Your task to perform on an android device: turn off airplane mode Image 0: 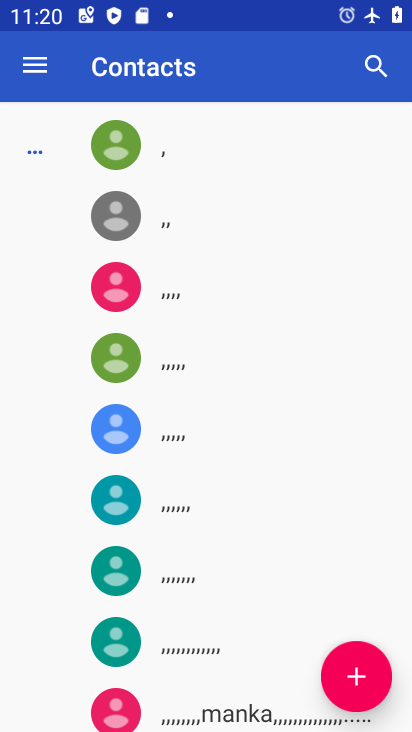
Step 0: press home button
Your task to perform on an android device: turn off airplane mode Image 1: 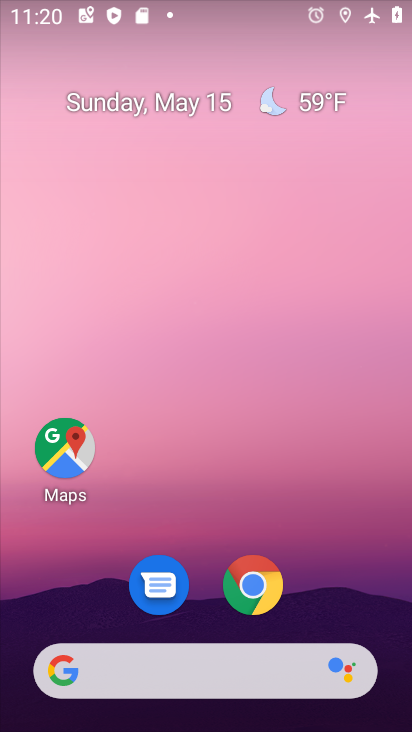
Step 1: drag from (258, 462) to (270, 29)
Your task to perform on an android device: turn off airplane mode Image 2: 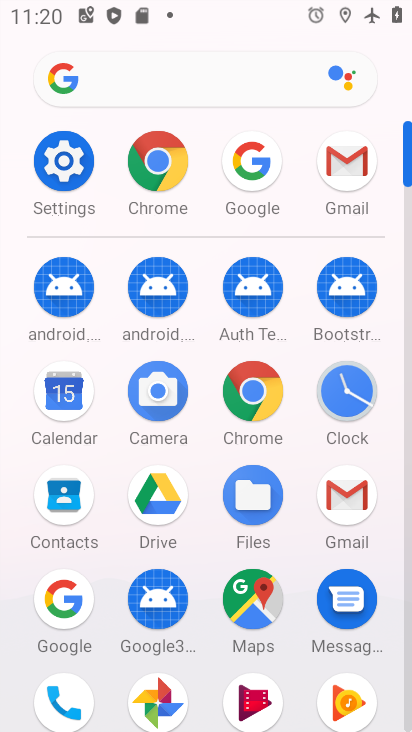
Step 2: click (70, 173)
Your task to perform on an android device: turn off airplane mode Image 3: 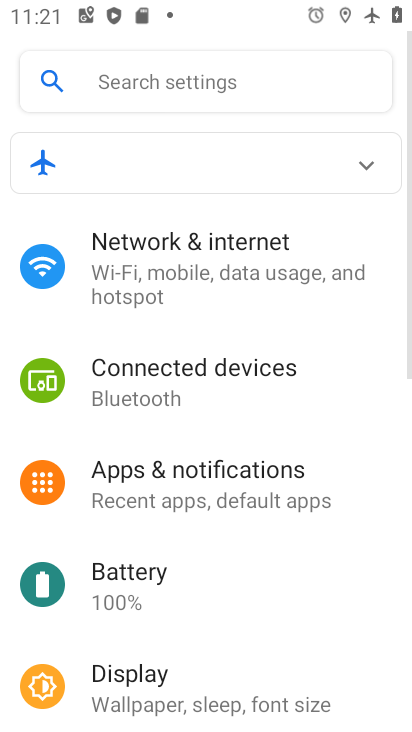
Step 3: click (156, 240)
Your task to perform on an android device: turn off airplane mode Image 4: 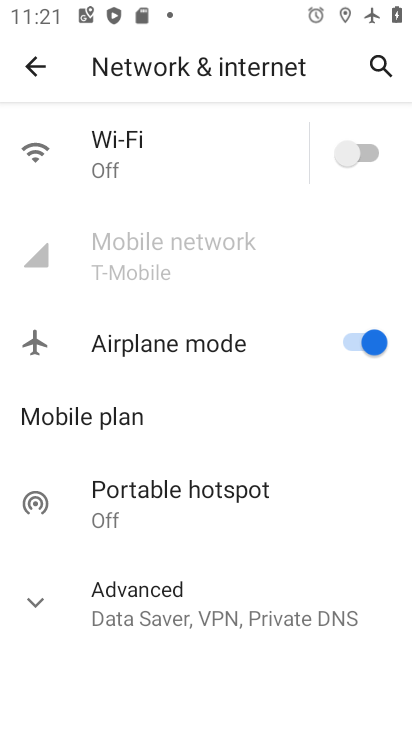
Step 4: click (342, 337)
Your task to perform on an android device: turn off airplane mode Image 5: 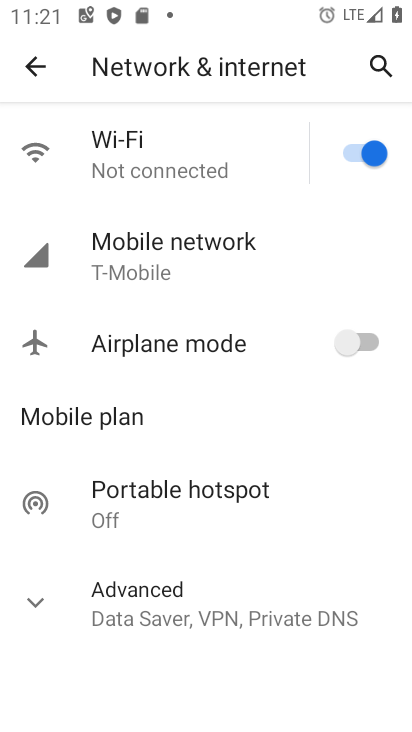
Step 5: task complete